Your task to perform on an android device: Show me popular videos on Youtube Image 0: 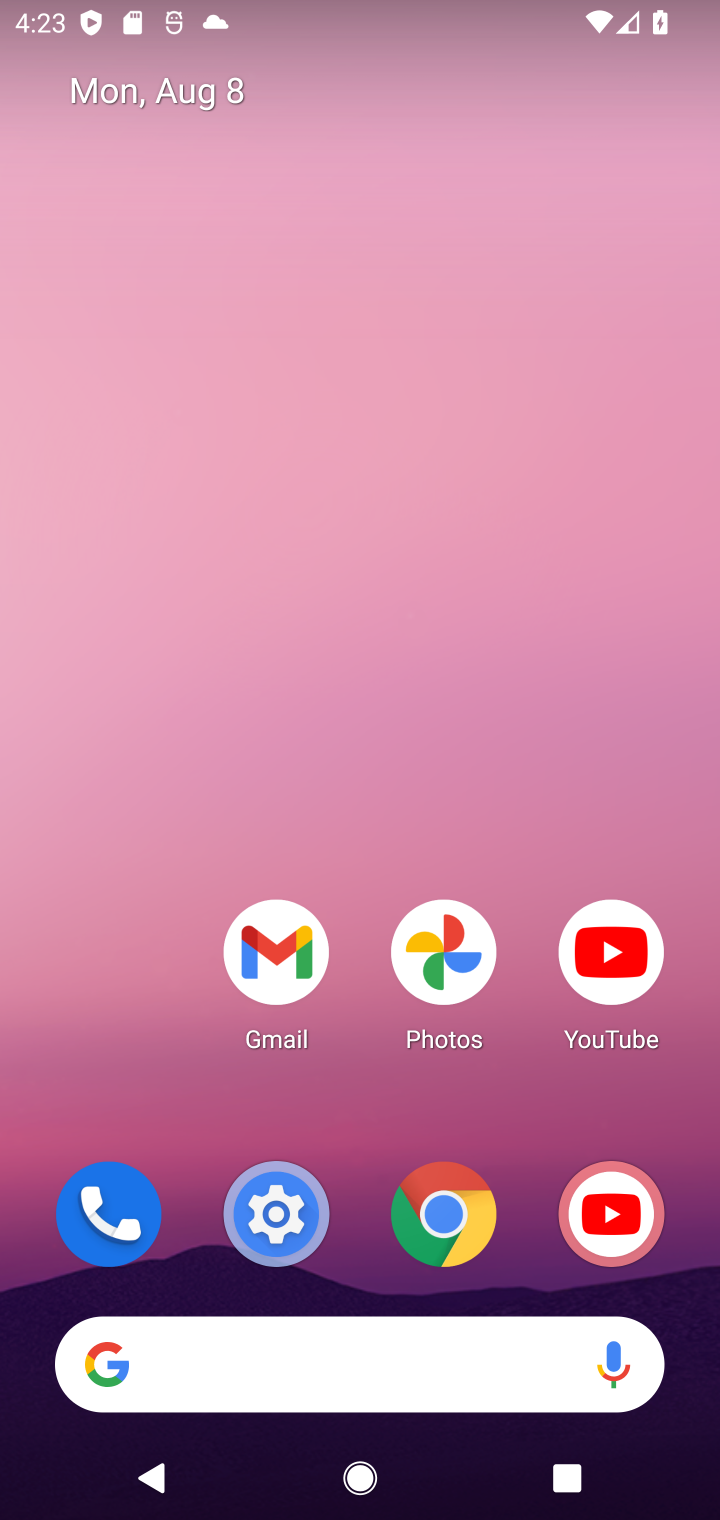
Step 0: drag from (368, 1098) to (370, 219)
Your task to perform on an android device: Show me popular videos on Youtube Image 1: 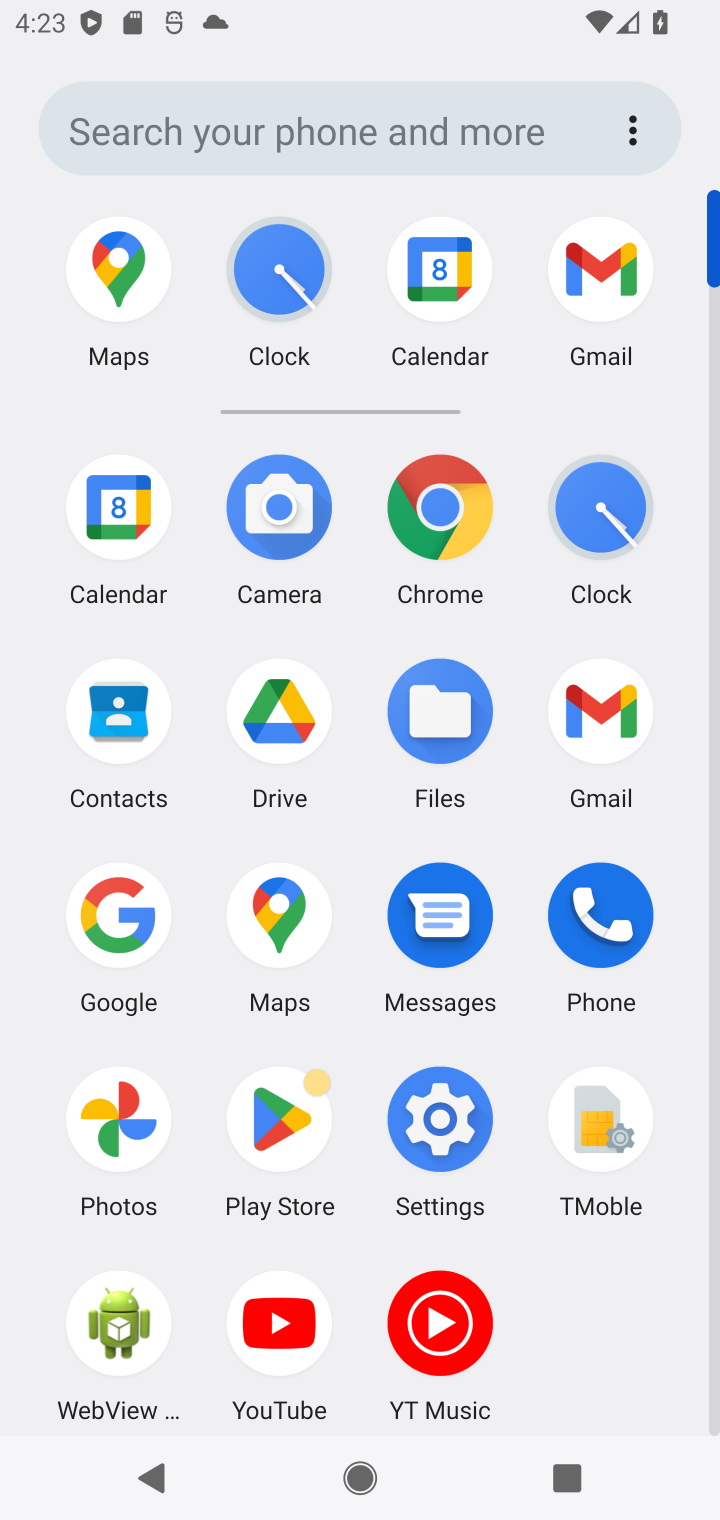
Step 1: click (279, 1320)
Your task to perform on an android device: Show me popular videos on Youtube Image 2: 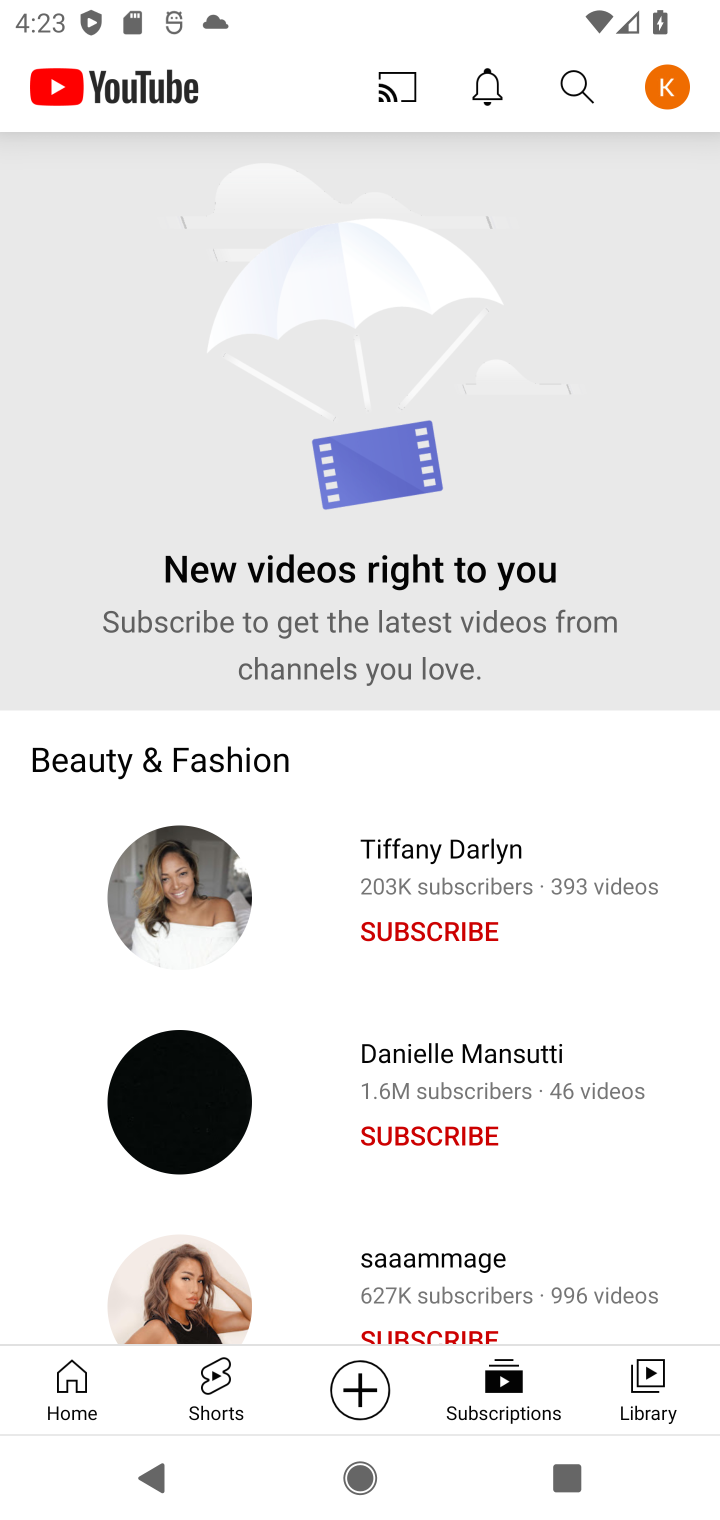
Step 2: click (567, 82)
Your task to perform on an android device: Show me popular videos on Youtube Image 3: 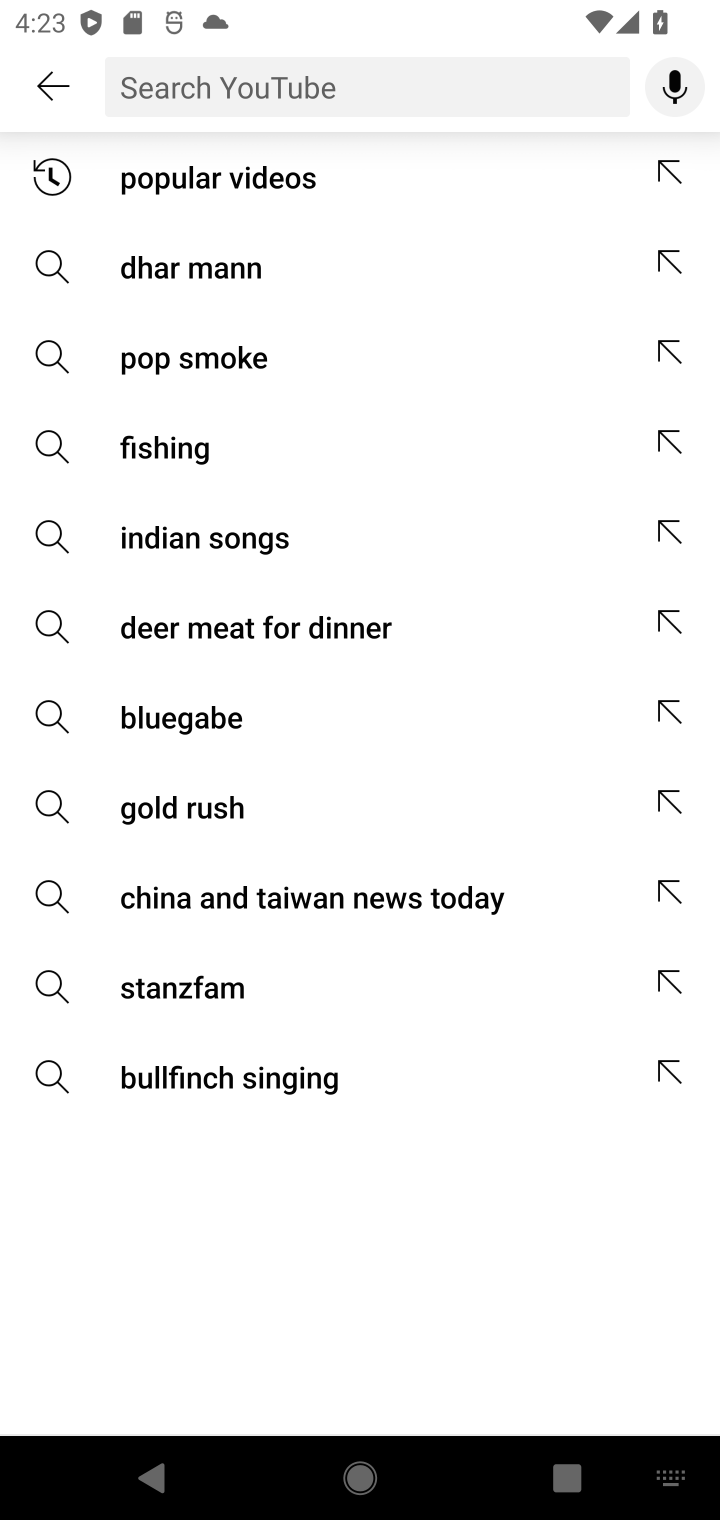
Step 3: type "popular videos"
Your task to perform on an android device: Show me popular videos on Youtube Image 4: 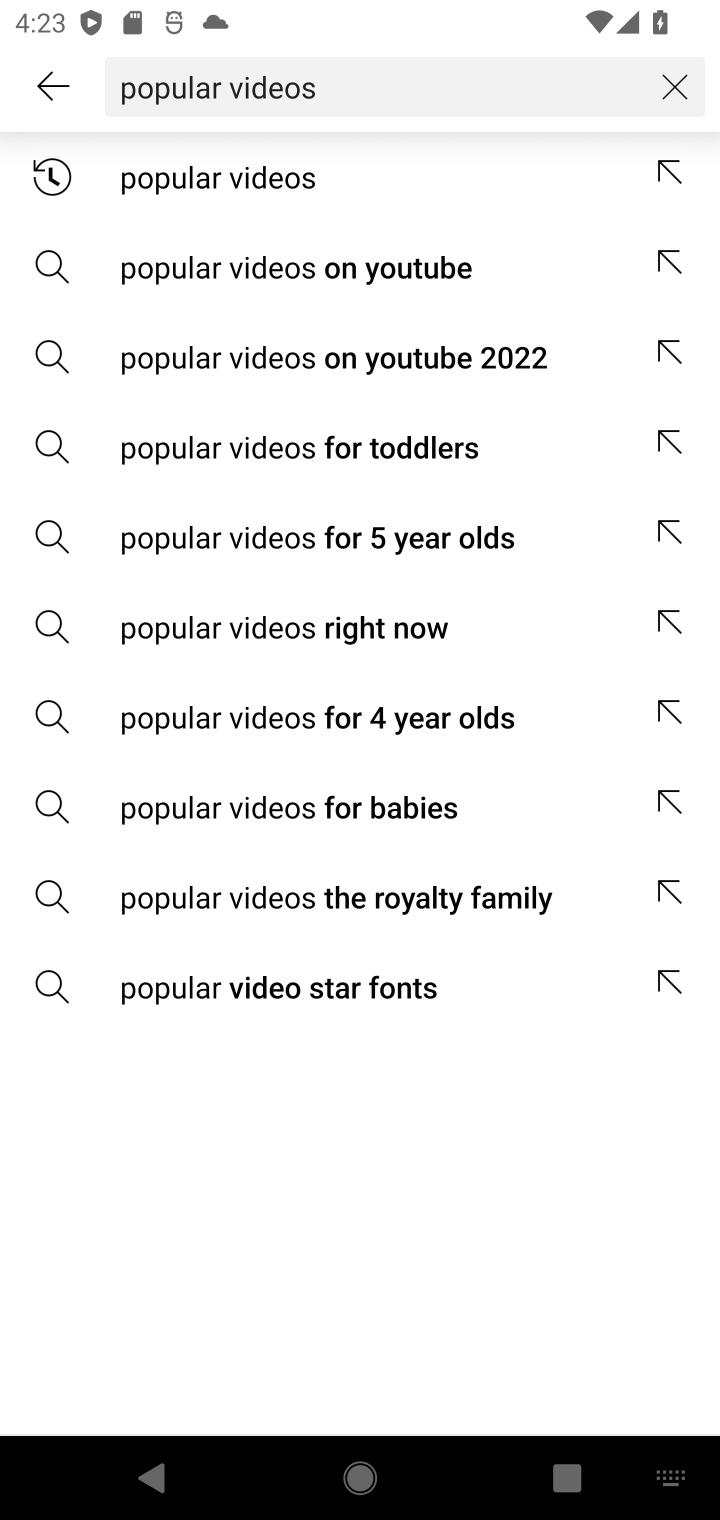
Step 4: click (235, 169)
Your task to perform on an android device: Show me popular videos on Youtube Image 5: 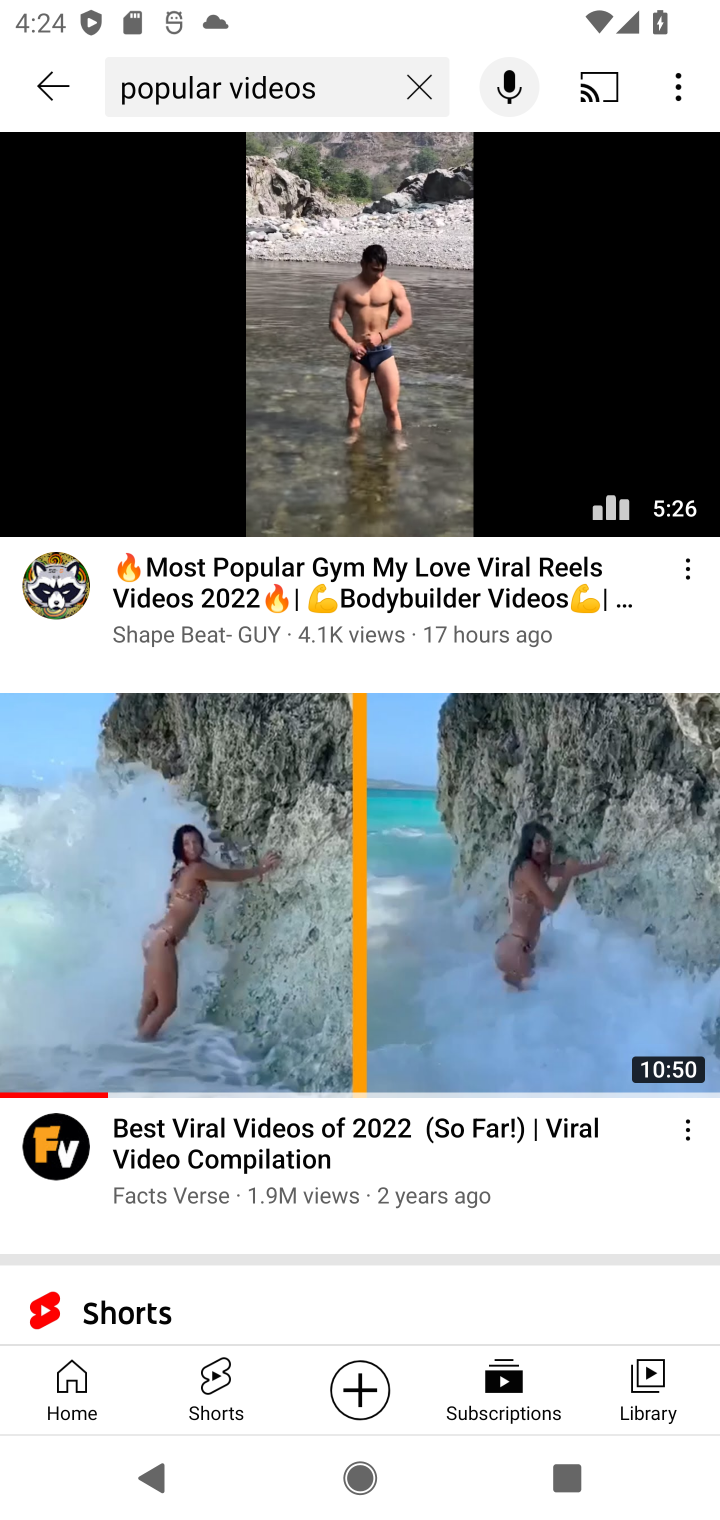
Step 5: task complete